Your task to perform on an android device: Open wifi settings Image 0: 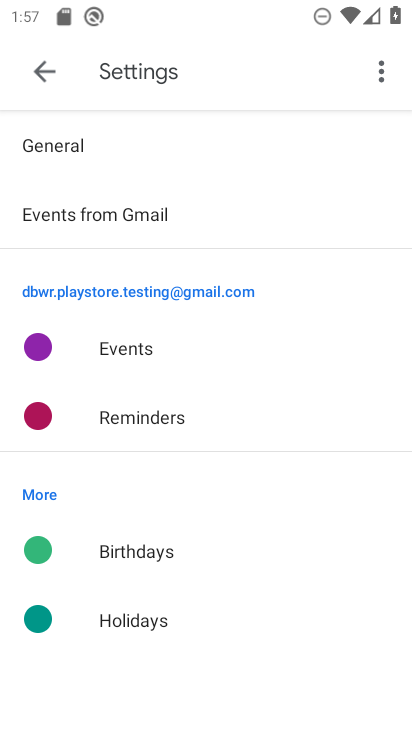
Step 0: press home button
Your task to perform on an android device: Open wifi settings Image 1: 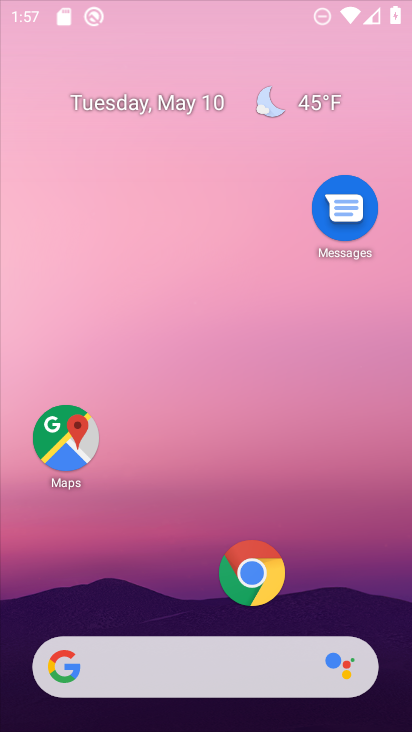
Step 1: drag from (175, 638) to (218, 18)
Your task to perform on an android device: Open wifi settings Image 2: 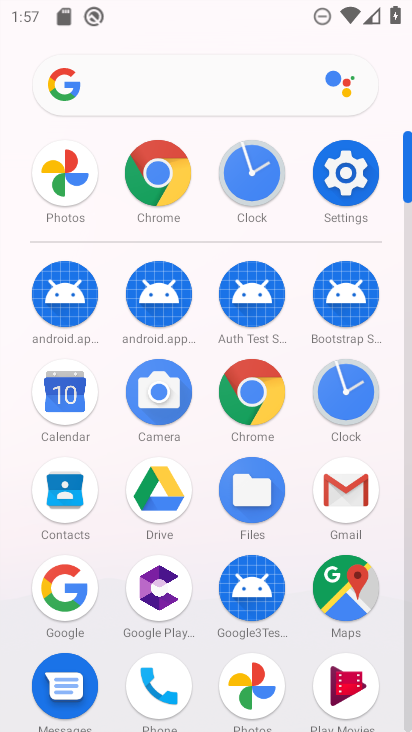
Step 2: click (354, 168)
Your task to perform on an android device: Open wifi settings Image 3: 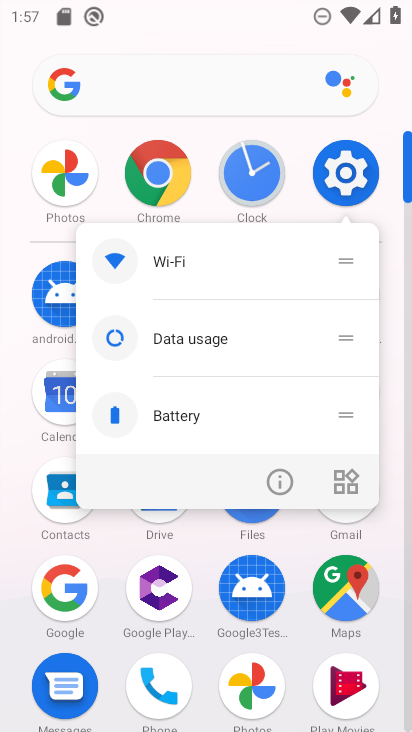
Step 3: click (279, 482)
Your task to perform on an android device: Open wifi settings Image 4: 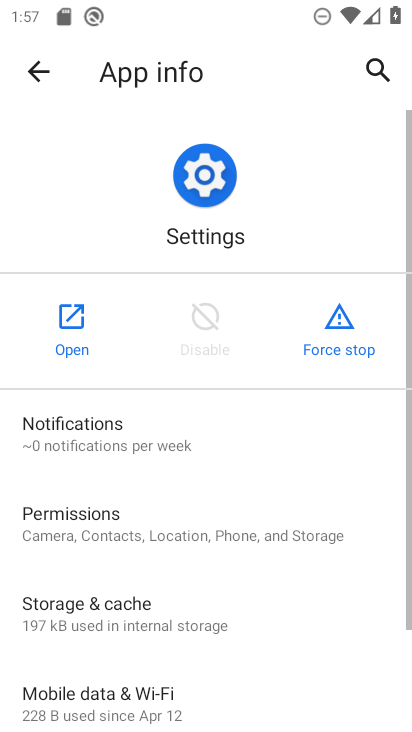
Step 4: click (67, 346)
Your task to perform on an android device: Open wifi settings Image 5: 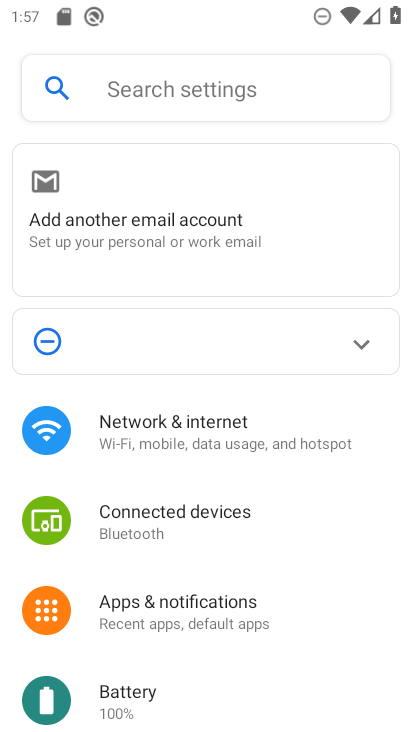
Step 5: click (160, 432)
Your task to perform on an android device: Open wifi settings Image 6: 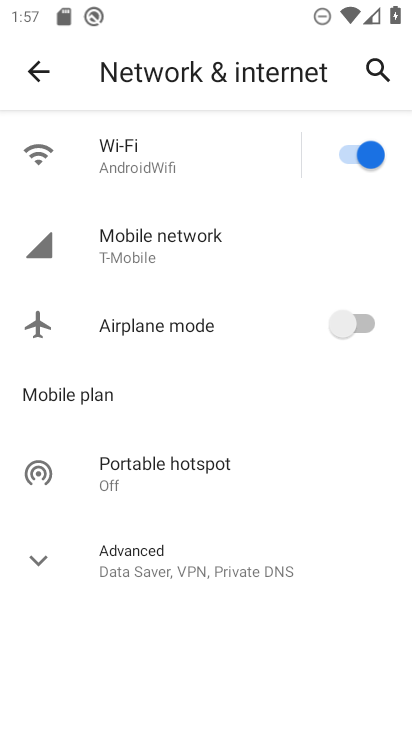
Step 6: click (188, 156)
Your task to perform on an android device: Open wifi settings Image 7: 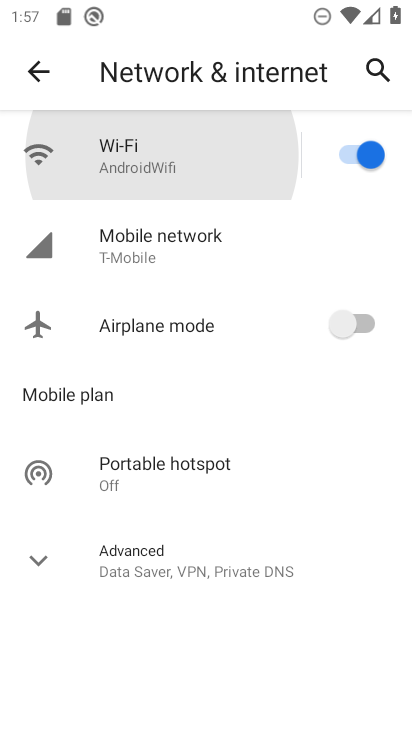
Step 7: click (188, 158)
Your task to perform on an android device: Open wifi settings Image 8: 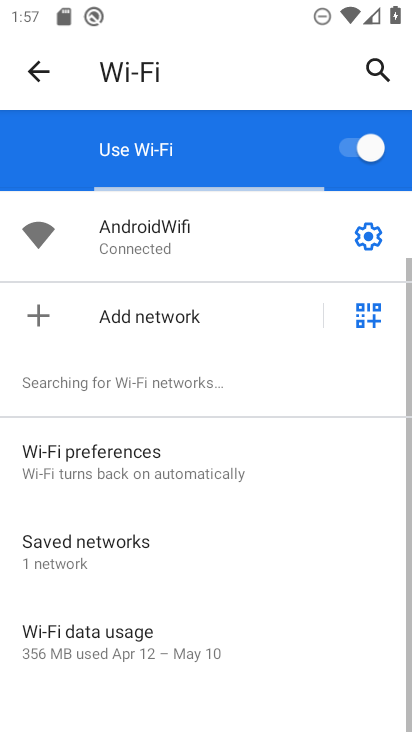
Step 8: task complete